Your task to perform on an android device: turn vacation reply on in the gmail app Image 0: 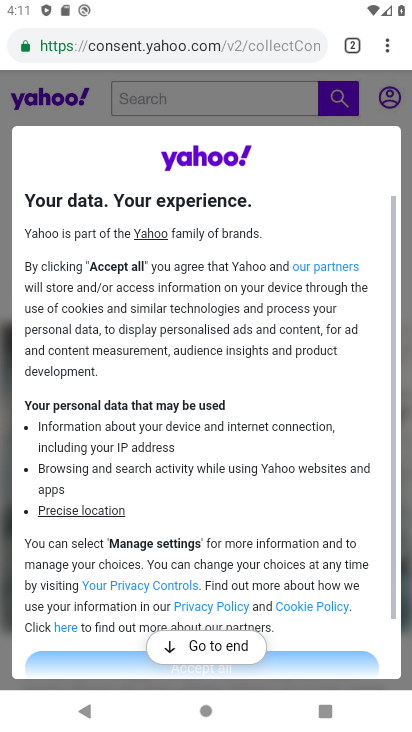
Step 0: task complete